Your task to perform on an android device: Go to Google Image 0: 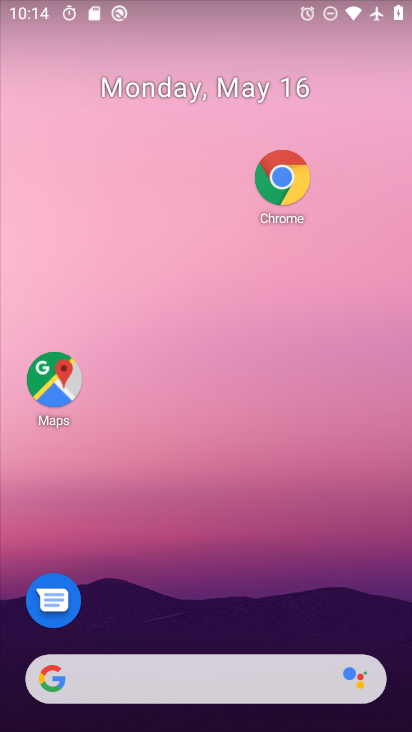
Step 0: drag from (159, 677) to (305, 225)
Your task to perform on an android device: Go to Google Image 1: 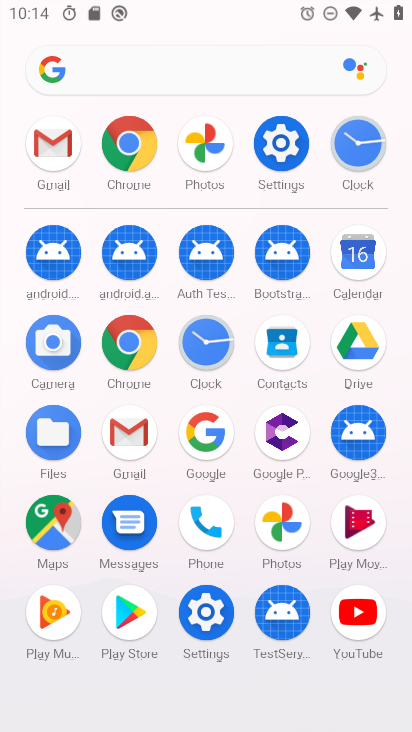
Step 1: click (210, 446)
Your task to perform on an android device: Go to Google Image 2: 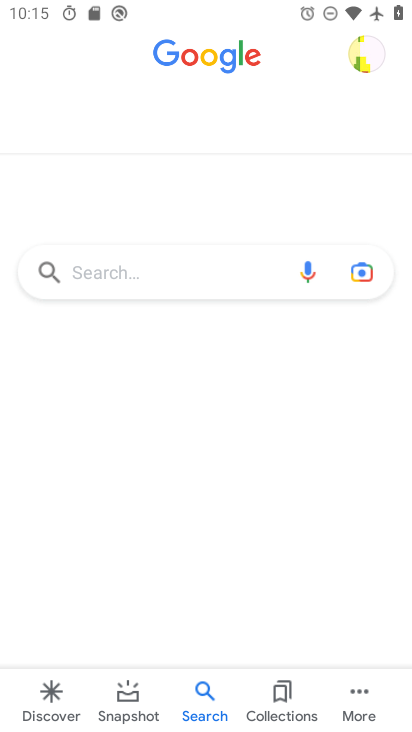
Step 2: task complete